Your task to perform on an android device: turn on notifications settings in the gmail app Image 0: 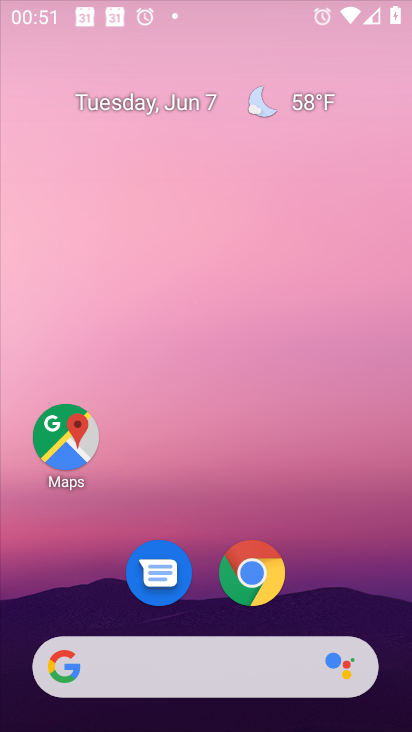
Step 0: press home button
Your task to perform on an android device: turn on notifications settings in the gmail app Image 1: 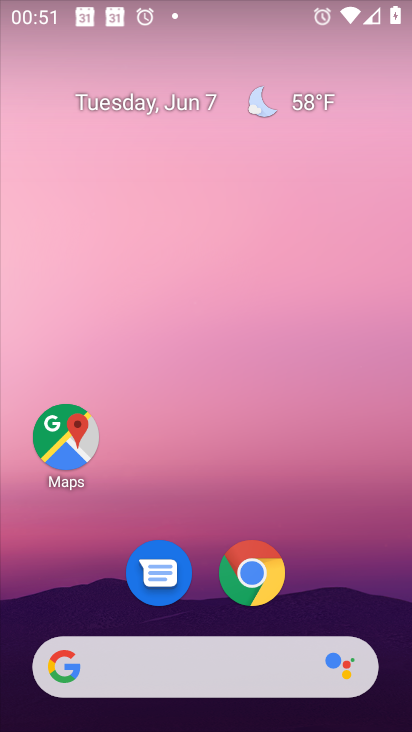
Step 1: drag from (401, 655) to (355, 100)
Your task to perform on an android device: turn on notifications settings in the gmail app Image 2: 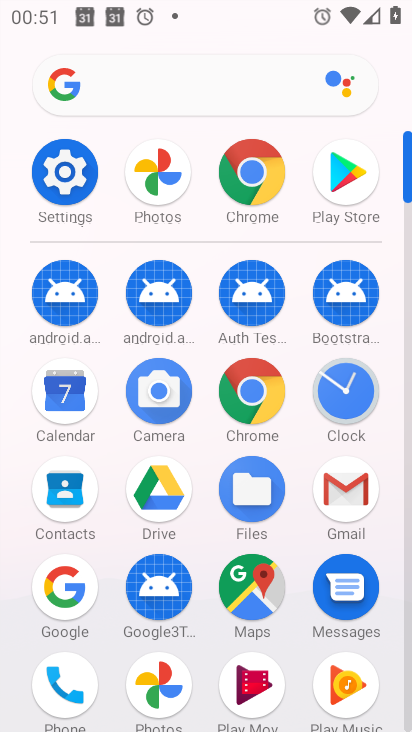
Step 2: click (332, 495)
Your task to perform on an android device: turn on notifications settings in the gmail app Image 3: 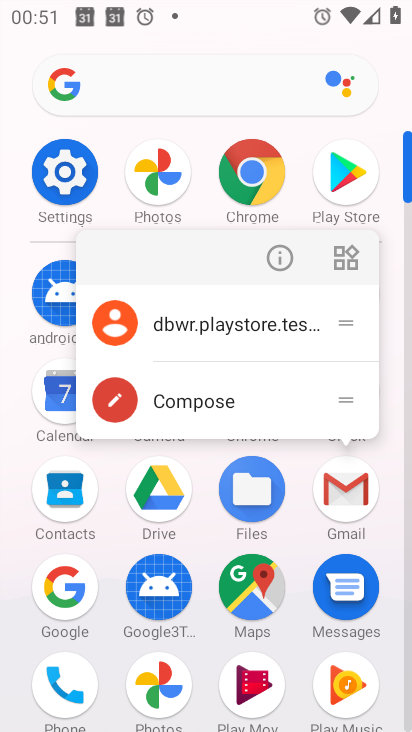
Step 3: click (296, 251)
Your task to perform on an android device: turn on notifications settings in the gmail app Image 4: 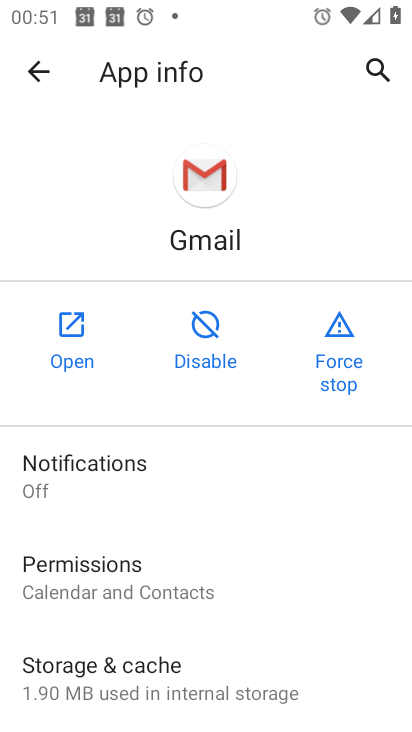
Step 4: click (48, 494)
Your task to perform on an android device: turn on notifications settings in the gmail app Image 5: 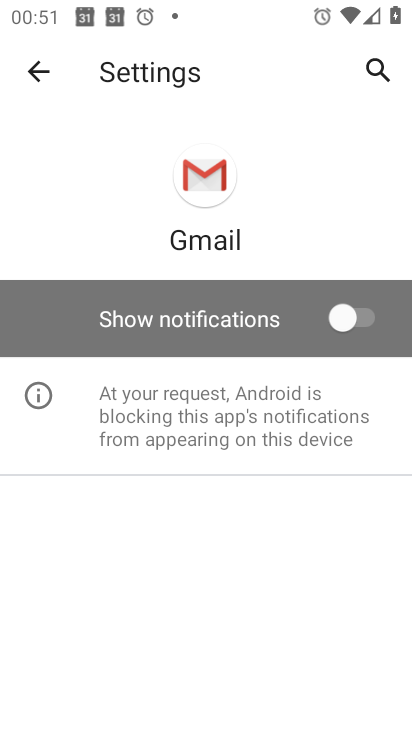
Step 5: click (277, 318)
Your task to perform on an android device: turn on notifications settings in the gmail app Image 6: 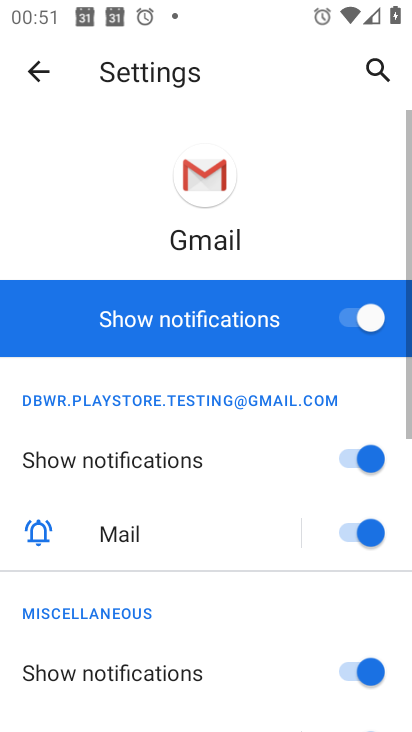
Step 6: task complete